Your task to perform on an android device: find which apps use the phone's location Image 0: 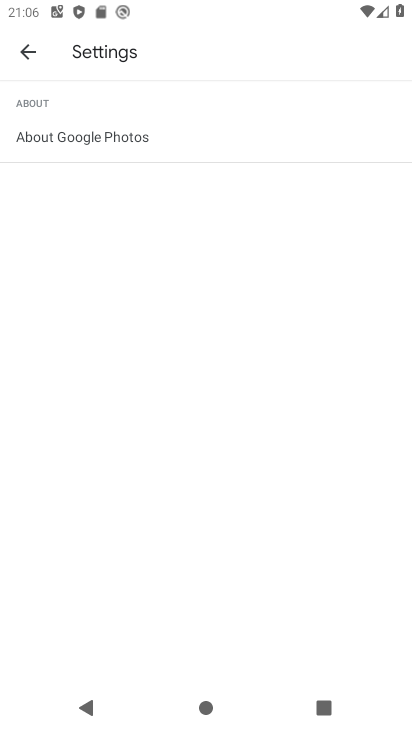
Step 0: press home button
Your task to perform on an android device: find which apps use the phone's location Image 1: 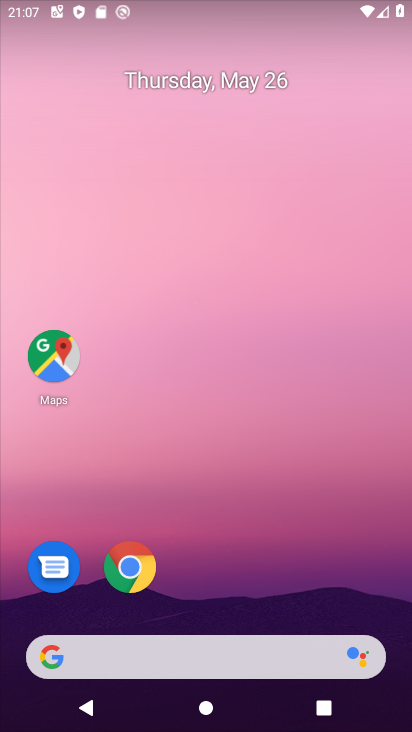
Step 1: drag from (251, 604) to (244, 148)
Your task to perform on an android device: find which apps use the phone's location Image 2: 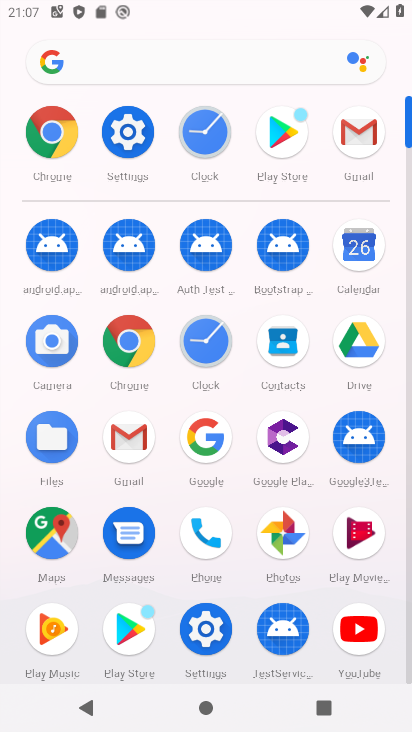
Step 2: click (130, 129)
Your task to perform on an android device: find which apps use the phone's location Image 3: 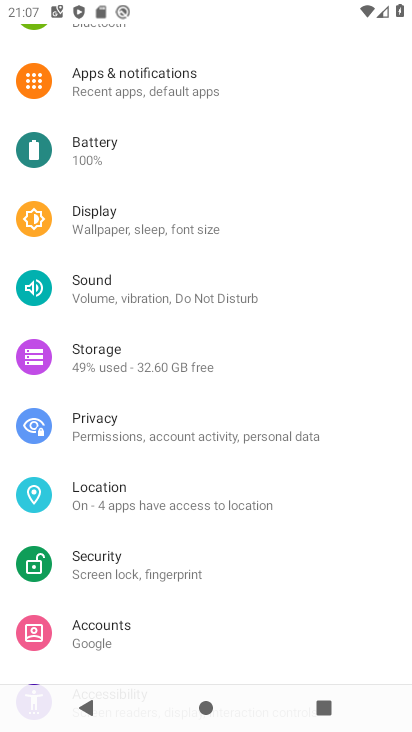
Step 3: click (128, 488)
Your task to perform on an android device: find which apps use the phone's location Image 4: 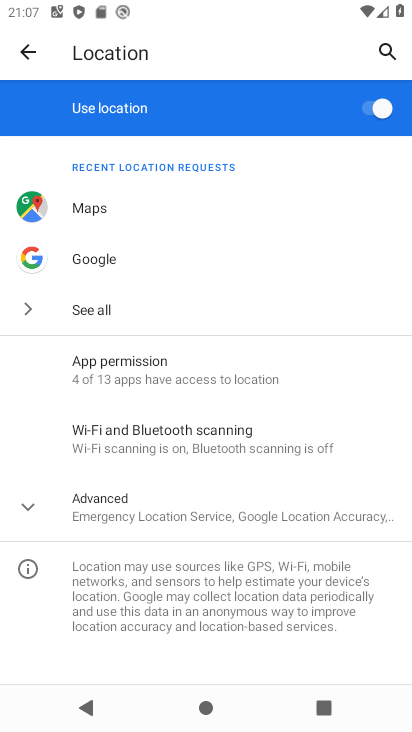
Step 4: click (214, 372)
Your task to perform on an android device: find which apps use the phone's location Image 5: 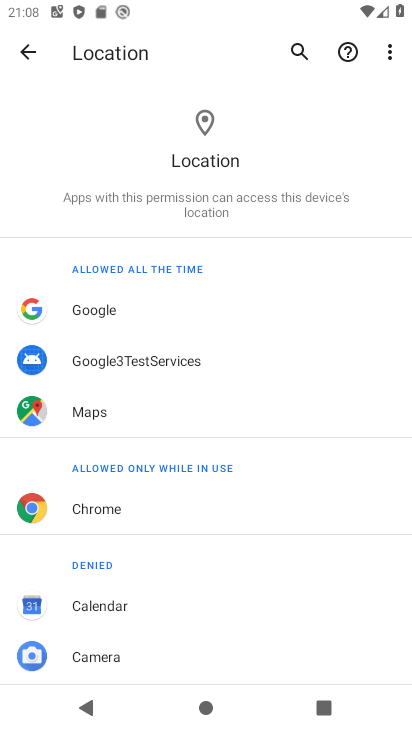
Step 5: task complete